Your task to perform on an android device: check battery use Image 0: 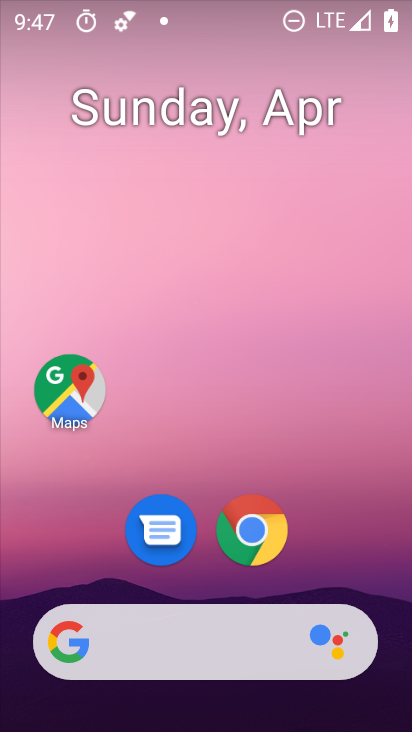
Step 0: drag from (350, 584) to (394, 8)
Your task to perform on an android device: check battery use Image 1: 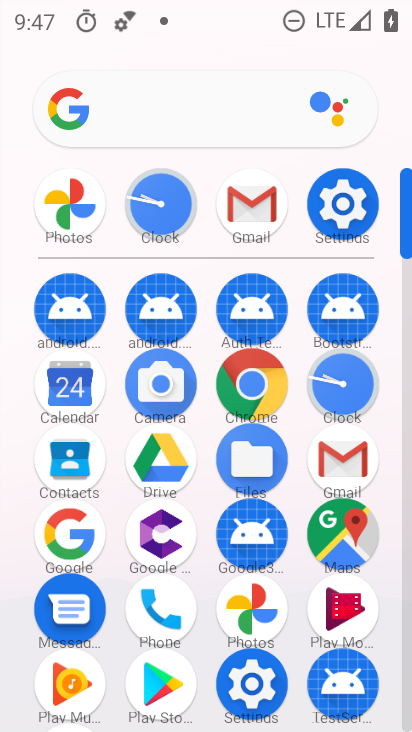
Step 1: click (344, 204)
Your task to perform on an android device: check battery use Image 2: 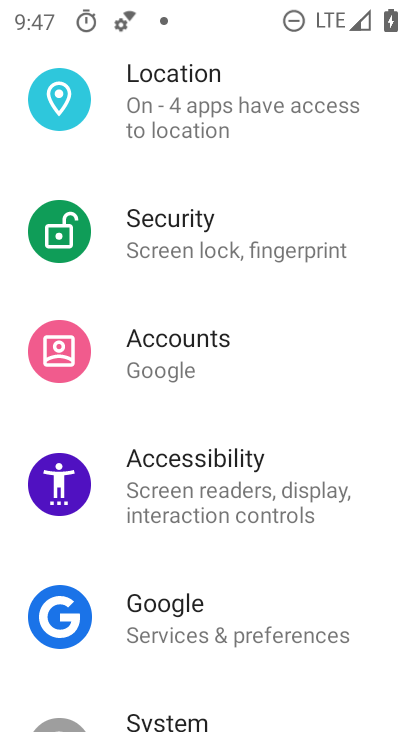
Step 2: drag from (334, 568) to (345, 721)
Your task to perform on an android device: check battery use Image 3: 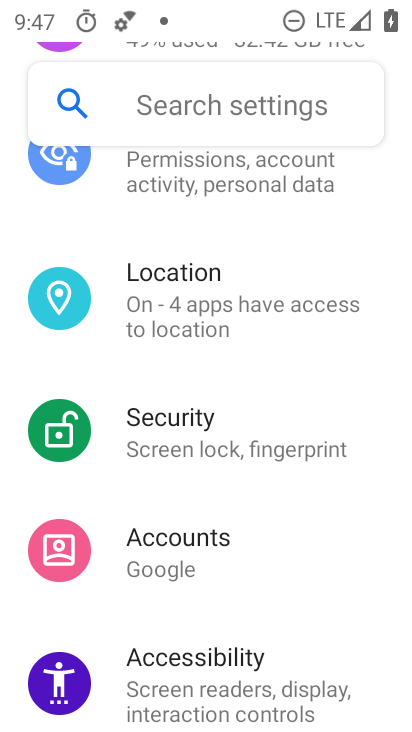
Step 3: drag from (360, 285) to (361, 620)
Your task to perform on an android device: check battery use Image 4: 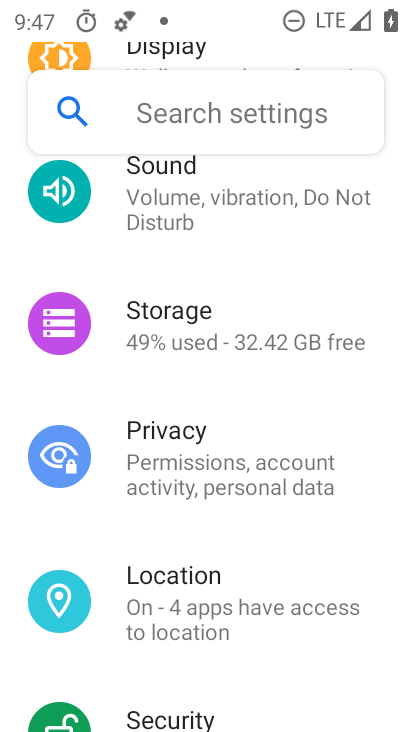
Step 4: drag from (331, 278) to (325, 609)
Your task to perform on an android device: check battery use Image 5: 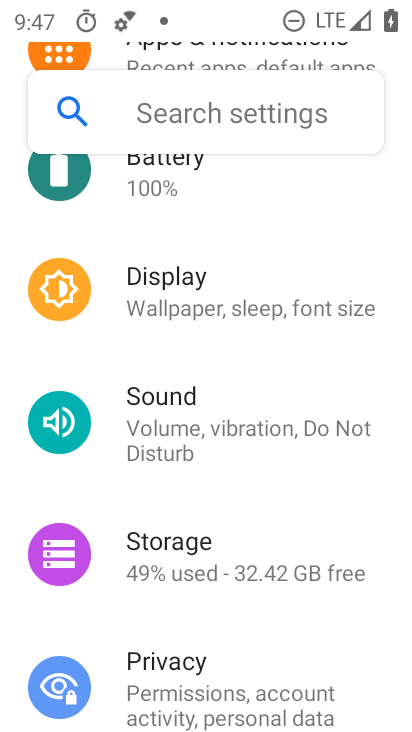
Step 5: drag from (267, 261) to (287, 508)
Your task to perform on an android device: check battery use Image 6: 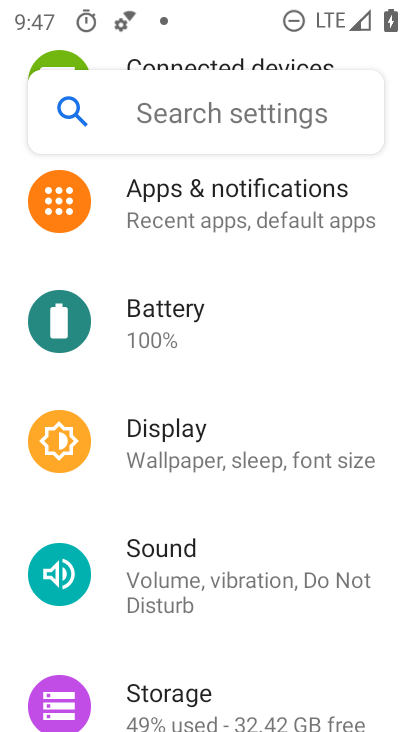
Step 6: click (145, 336)
Your task to perform on an android device: check battery use Image 7: 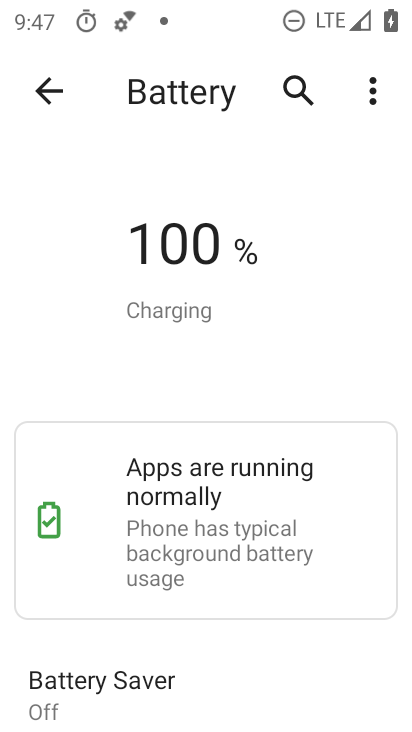
Step 7: click (369, 107)
Your task to perform on an android device: check battery use Image 8: 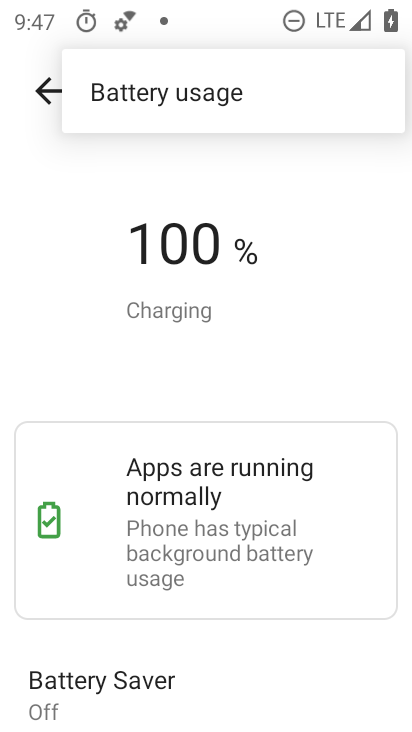
Step 8: click (168, 95)
Your task to perform on an android device: check battery use Image 9: 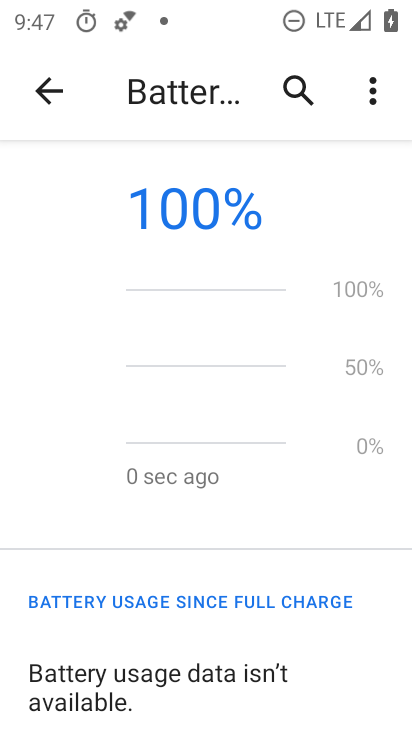
Step 9: task complete